Your task to perform on an android device: turn on javascript in the chrome app Image 0: 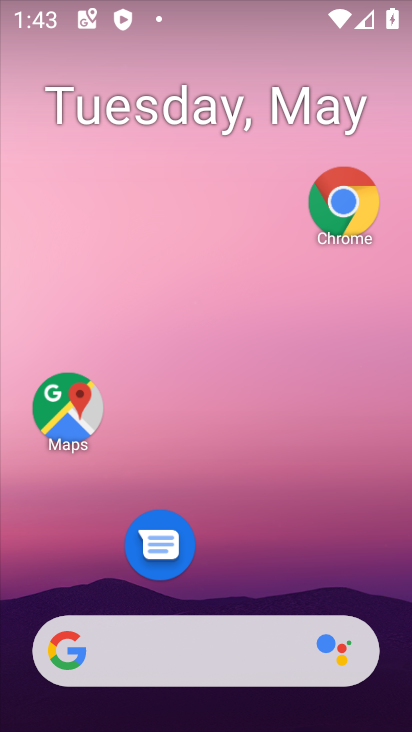
Step 0: click (338, 204)
Your task to perform on an android device: turn on javascript in the chrome app Image 1: 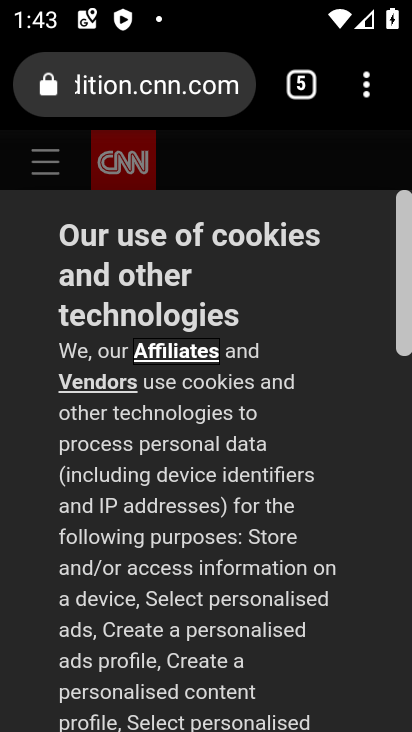
Step 1: click (390, 93)
Your task to perform on an android device: turn on javascript in the chrome app Image 2: 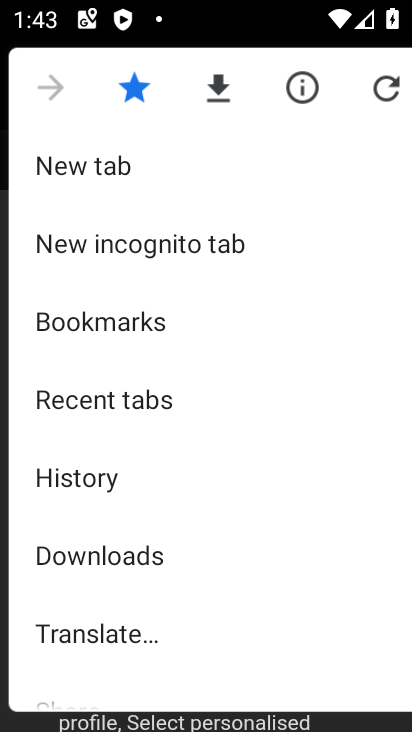
Step 2: drag from (135, 588) to (137, 98)
Your task to perform on an android device: turn on javascript in the chrome app Image 3: 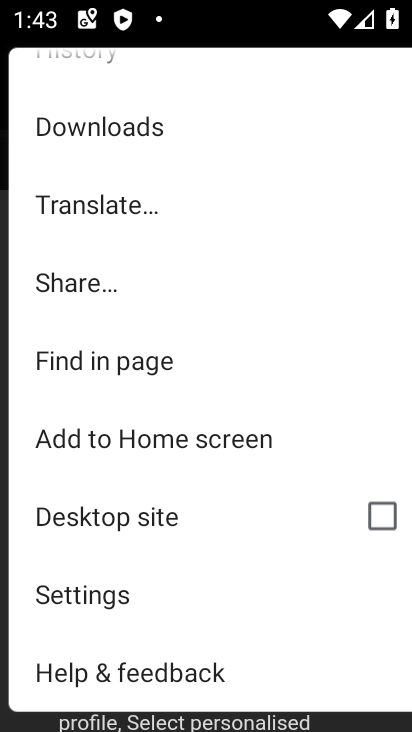
Step 3: drag from (128, 620) to (173, 201)
Your task to perform on an android device: turn on javascript in the chrome app Image 4: 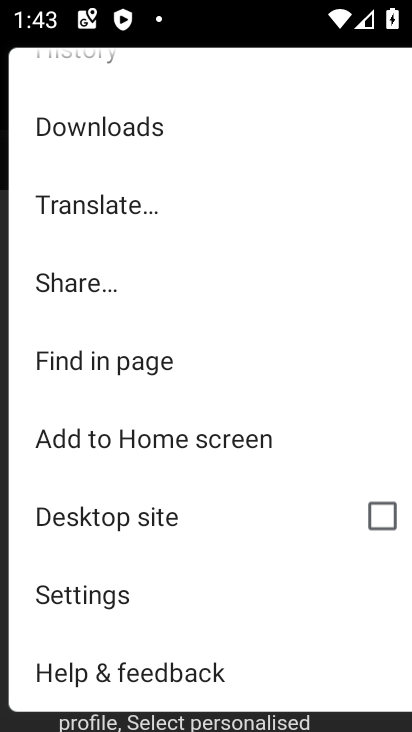
Step 4: click (131, 621)
Your task to perform on an android device: turn on javascript in the chrome app Image 5: 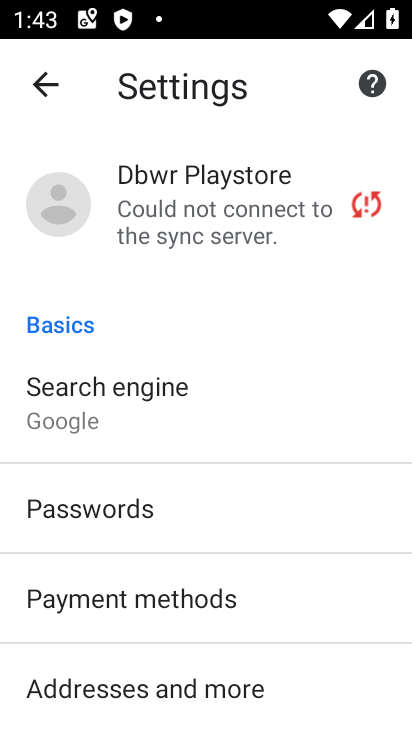
Step 5: drag from (131, 621) to (180, 169)
Your task to perform on an android device: turn on javascript in the chrome app Image 6: 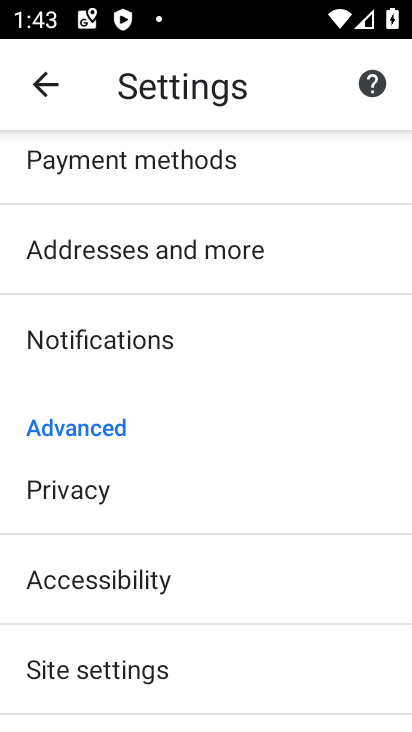
Step 6: drag from (168, 678) to (198, 307)
Your task to perform on an android device: turn on javascript in the chrome app Image 7: 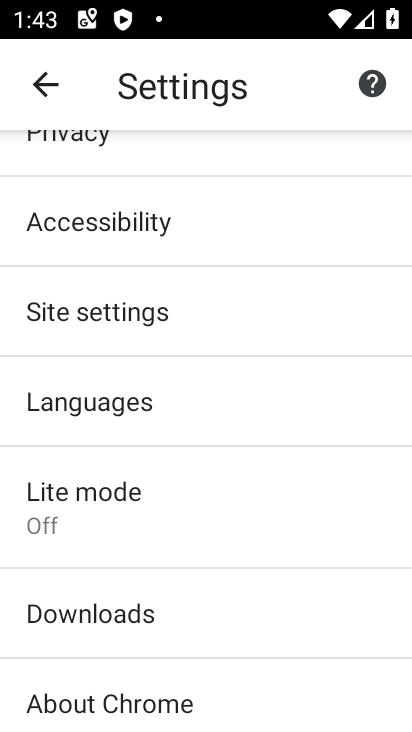
Step 7: click (123, 321)
Your task to perform on an android device: turn on javascript in the chrome app Image 8: 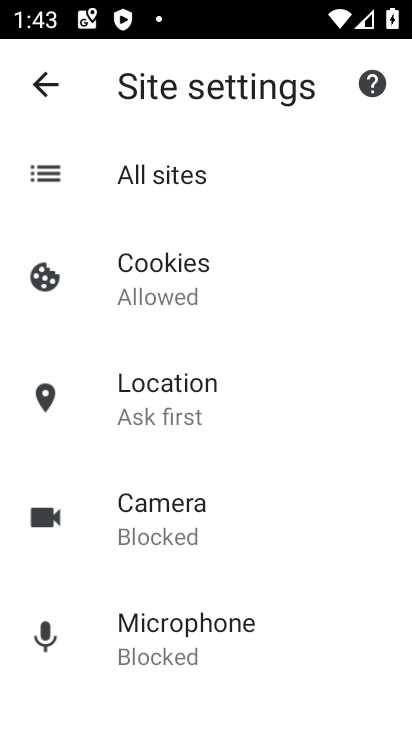
Step 8: drag from (132, 570) to (243, 179)
Your task to perform on an android device: turn on javascript in the chrome app Image 9: 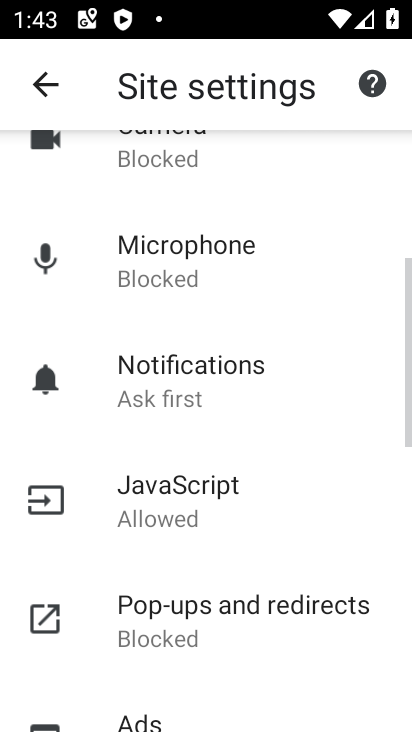
Step 9: click (192, 657)
Your task to perform on an android device: turn on javascript in the chrome app Image 10: 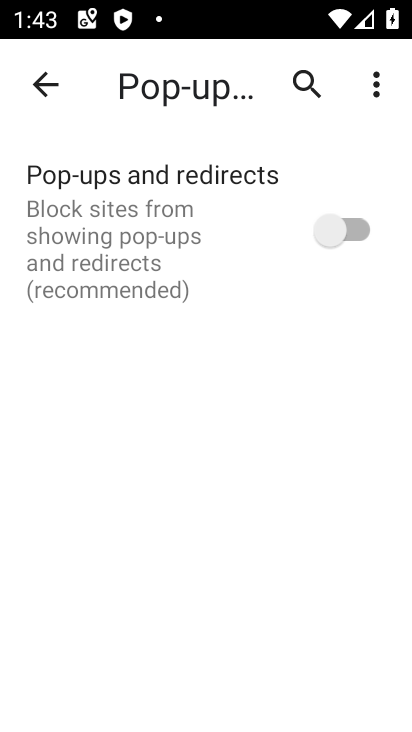
Step 10: click (60, 85)
Your task to perform on an android device: turn on javascript in the chrome app Image 11: 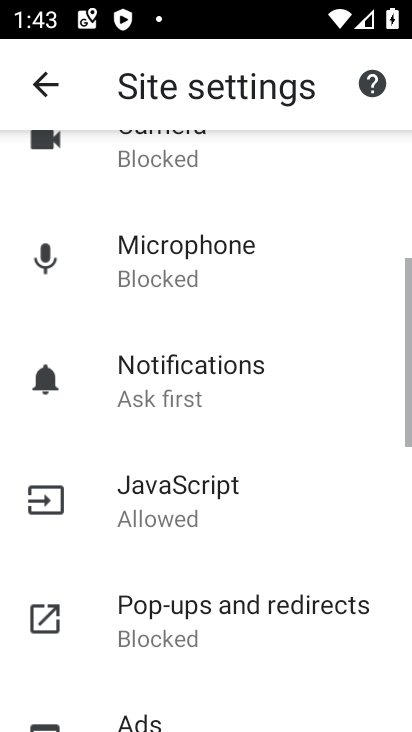
Step 11: click (211, 476)
Your task to perform on an android device: turn on javascript in the chrome app Image 12: 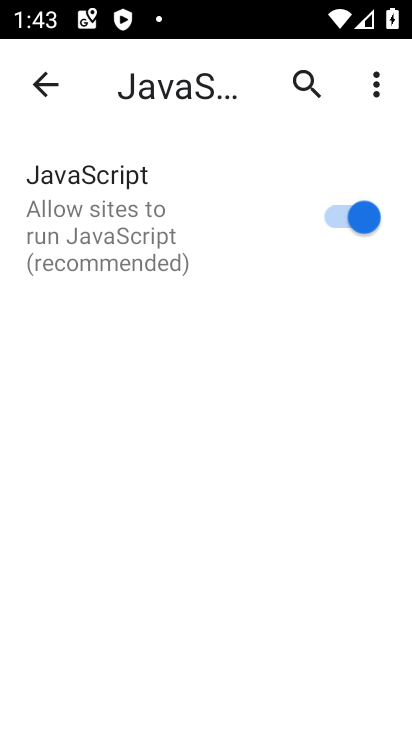
Step 12: task complete